Your task to perform on an android device: Search for good Greek restaurants Image 0: 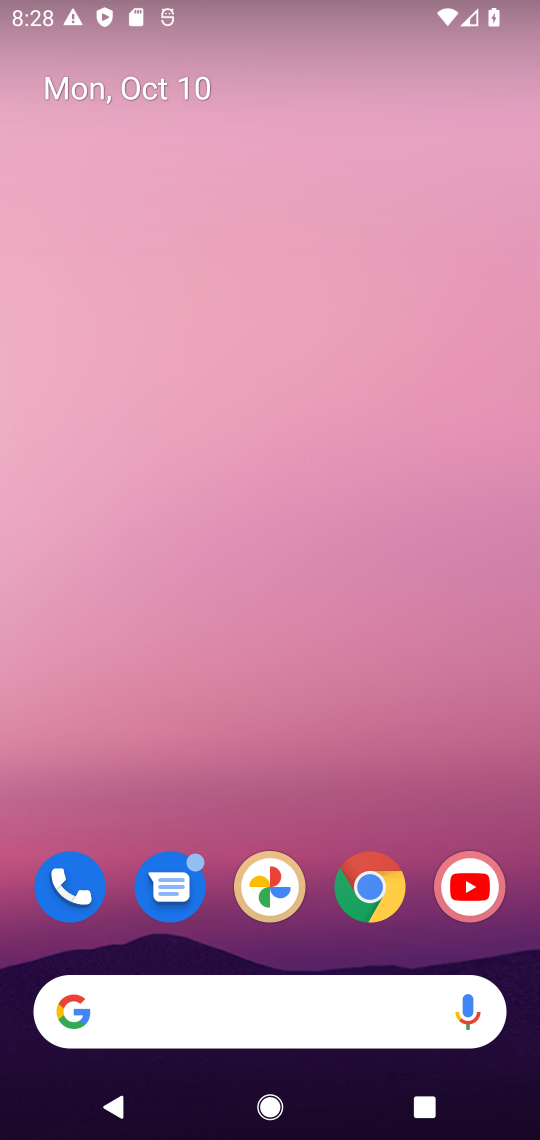
Step 0: click (370, 909)
Your task to perform on an android device: Search for good Greek restaurants Image 1: 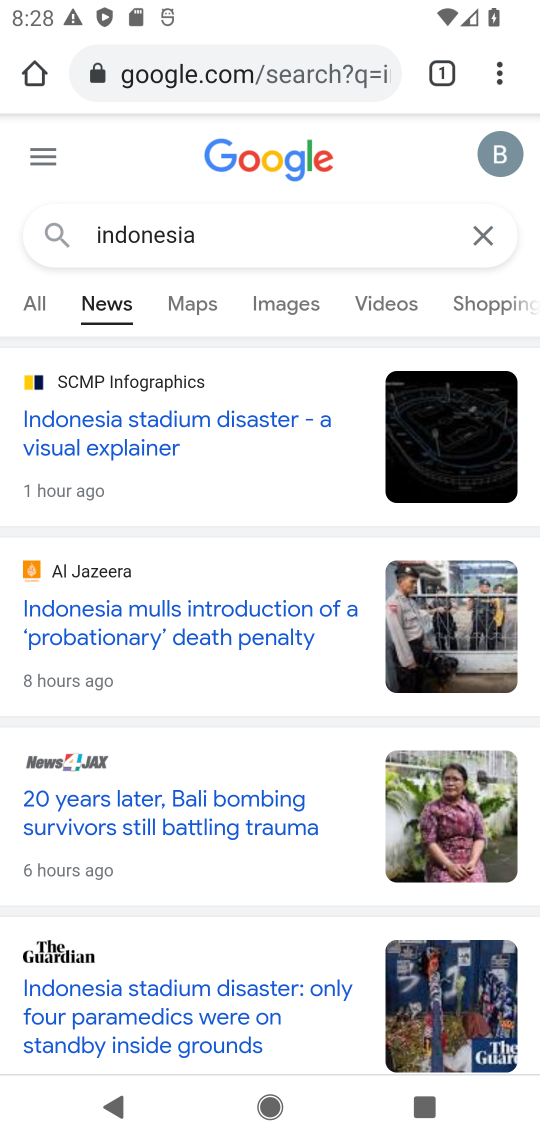
Step 1: click (293, 79)
Your task to perform on an android device: Search for good Greek restaurants Image 2: 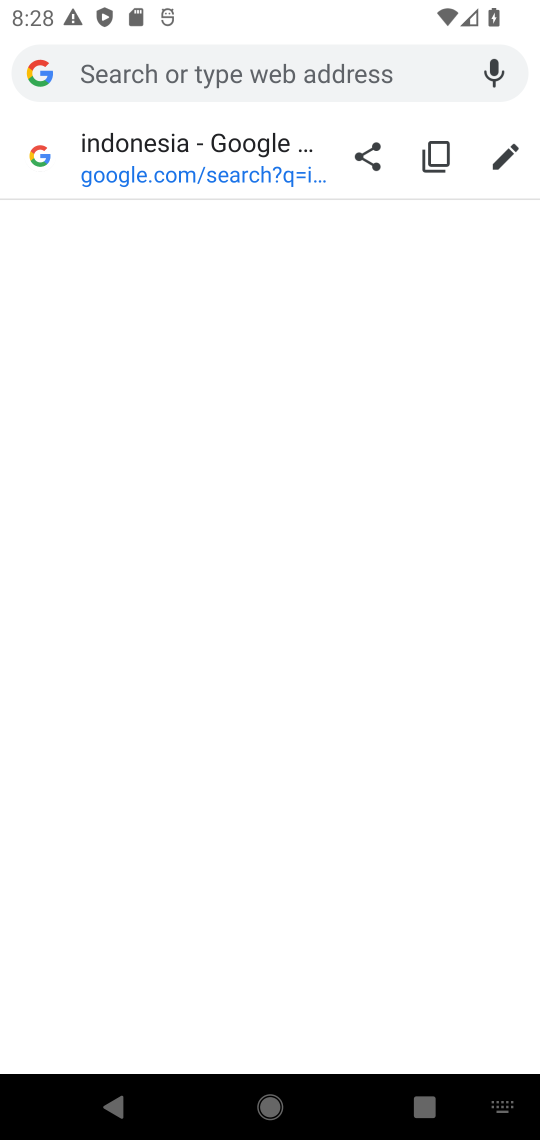
Step 2: type "greek restaurants"
Your task to perform on an android device: Search for good Greek restaurants Image 3: 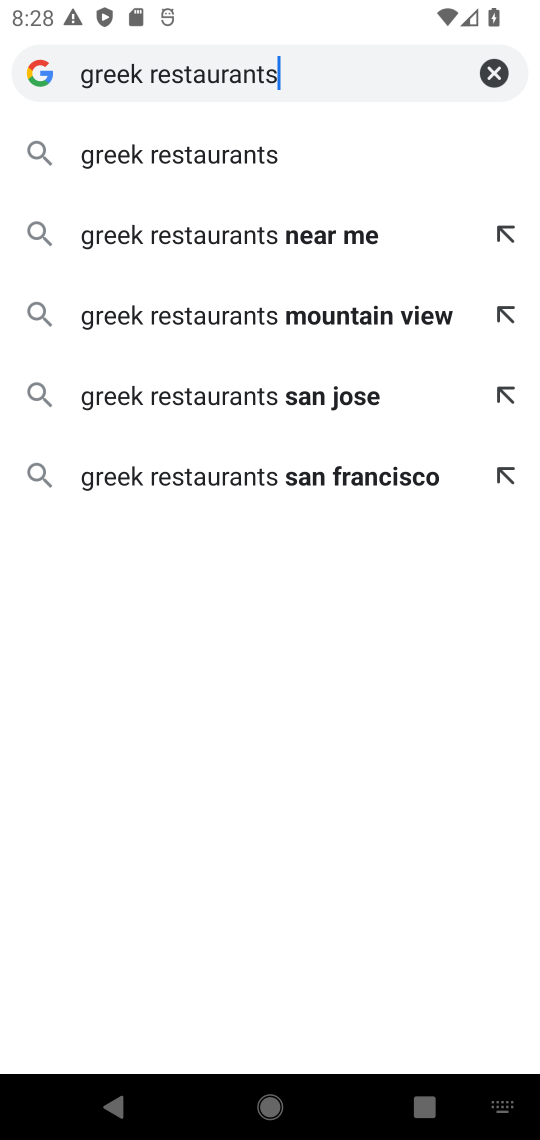
Step 3: click (200, 149)
Your task to perform on an android device: Search for good Greek restaurants Image 4: 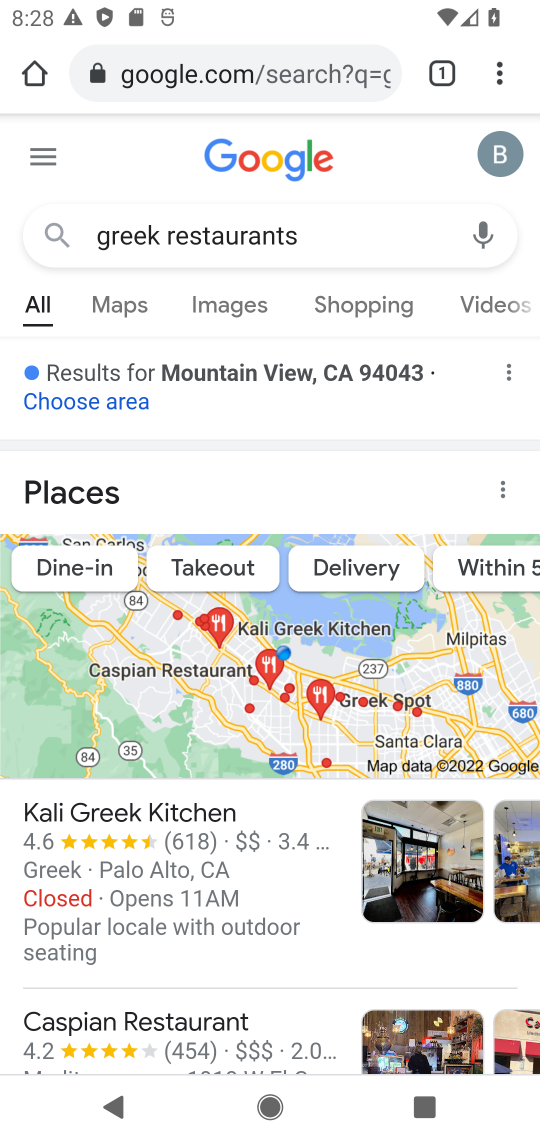
Step 4: task complete